Your task to perform on an android device: open app "Messages" Image 0: 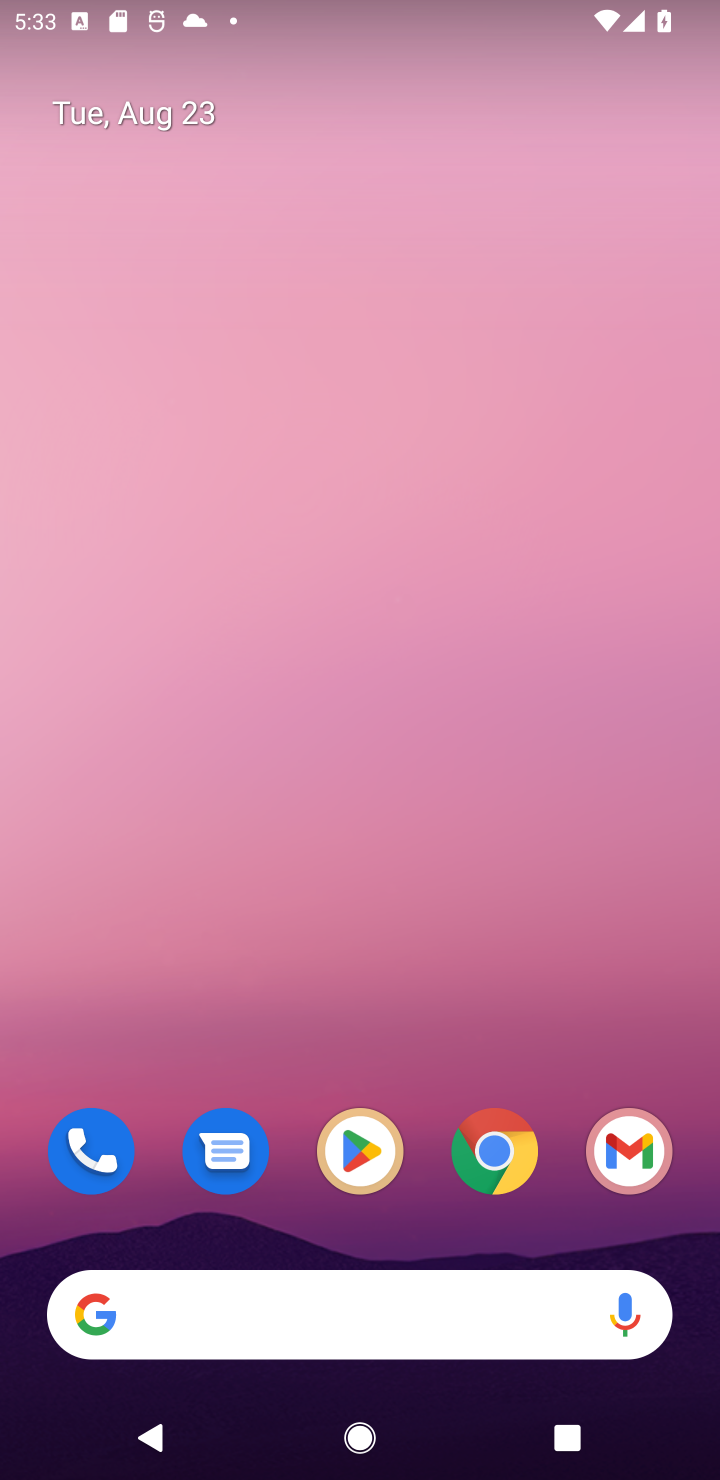
Step 0: click (359, 1163)
Your task to perform on an android device: open app "Messages" Image 1: 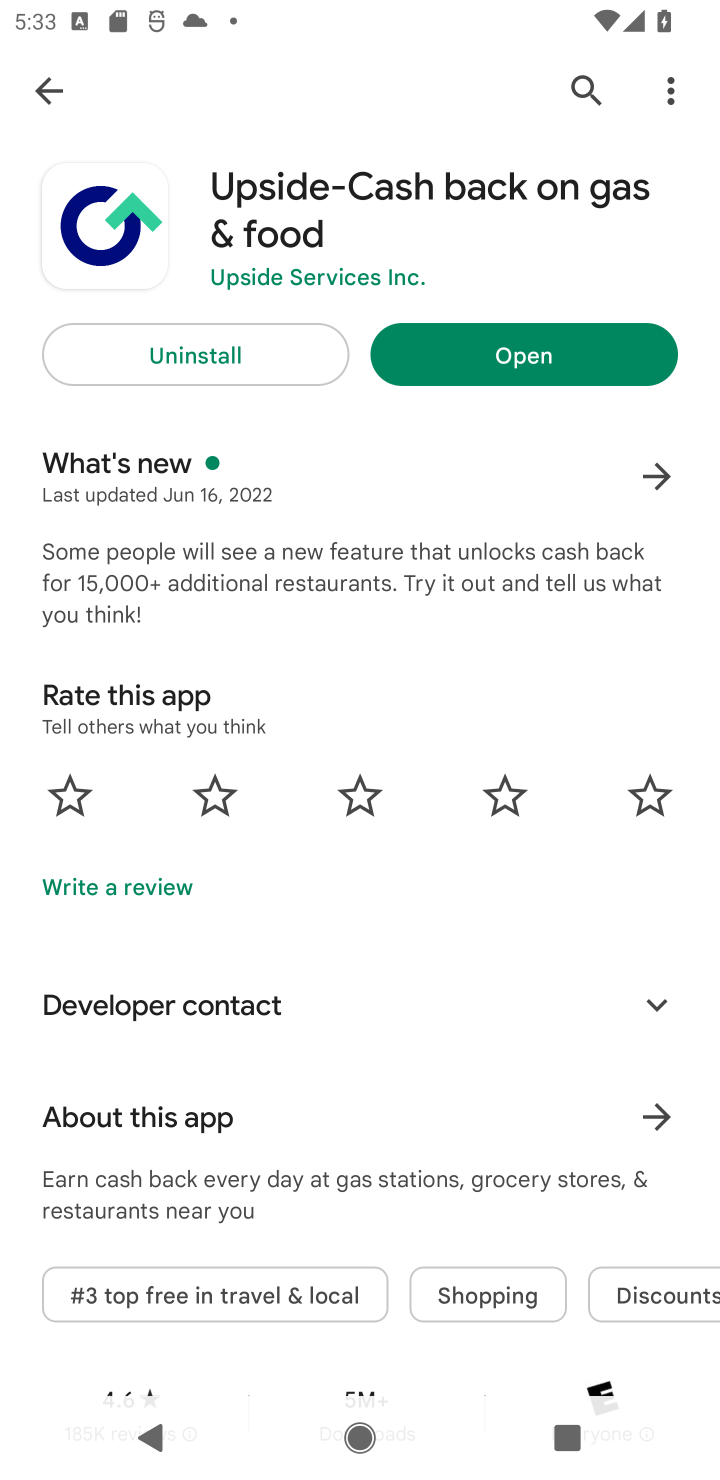
Step 1: click (578, 70)
Your task to perform on an android device: open app "Messages" Image 2: 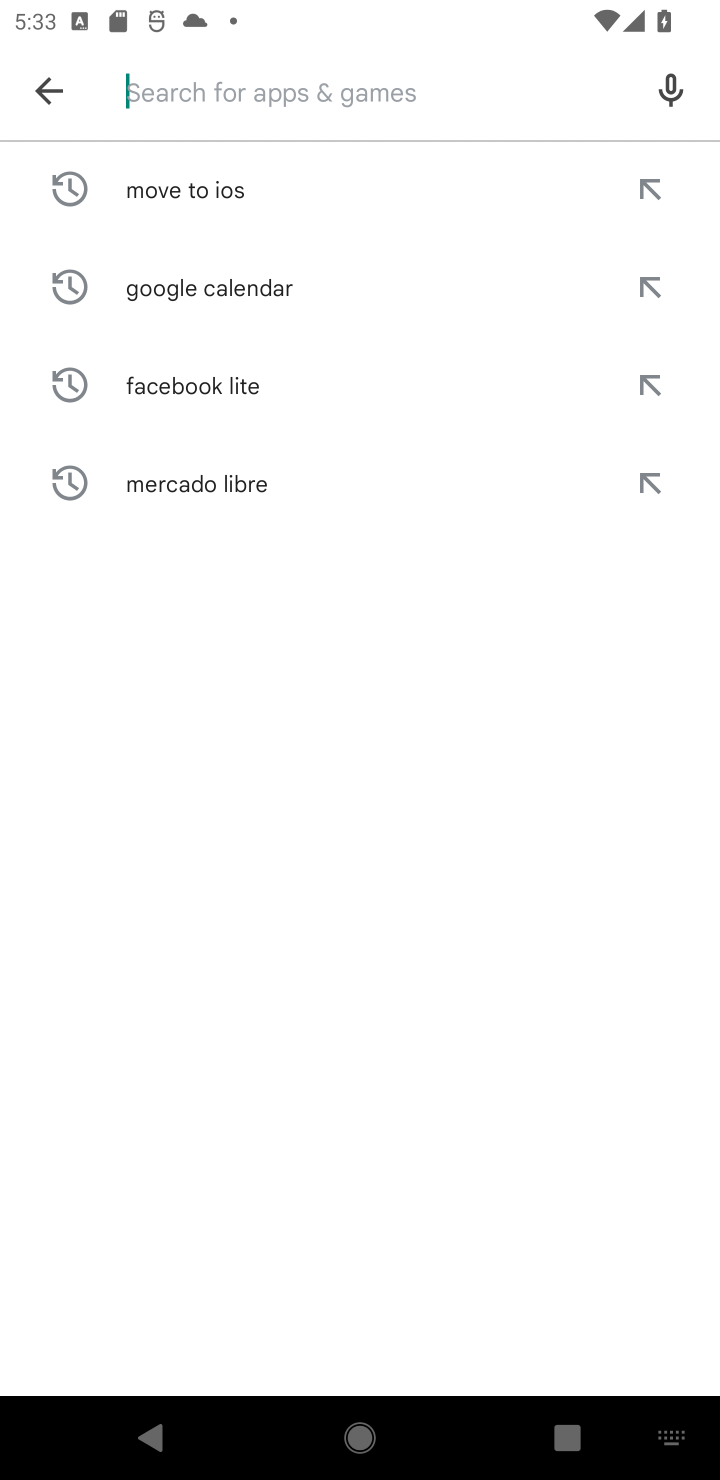
Step 2: type "Messages"
Your task to perform on an android device: open app "Messages" Image 3: 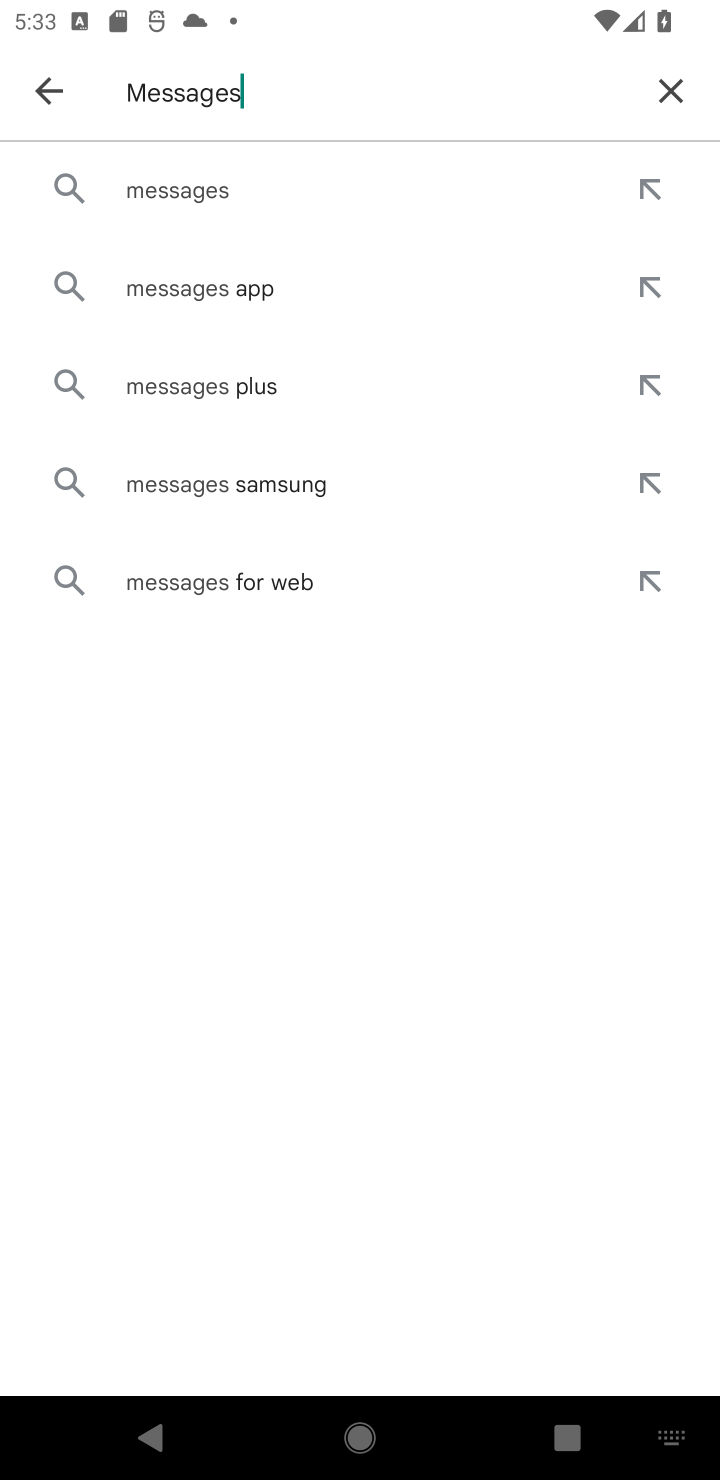
Step 3: click (155, 188)
Your task to perform on an android device: open app "Messages" Image 4: 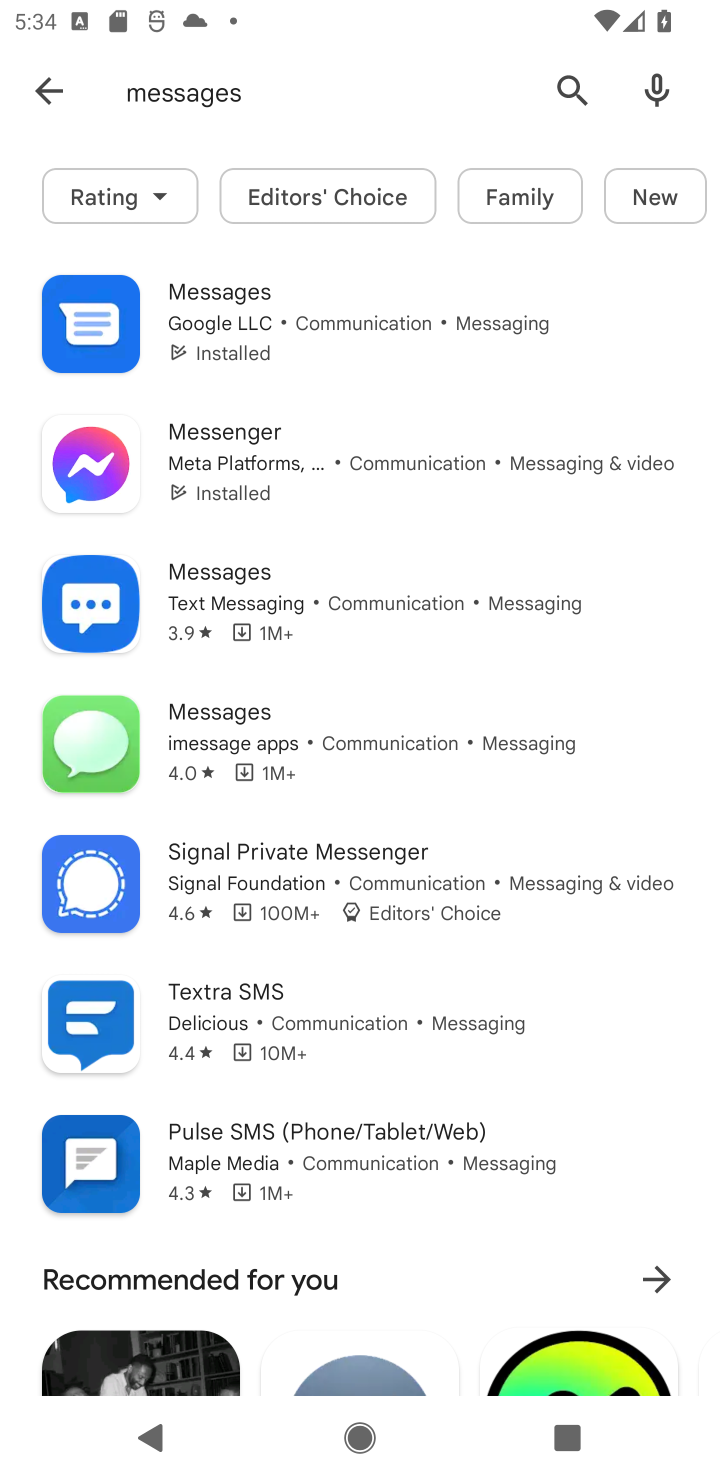
Step 4: click (218, 320)
Your task to perform on an android device: open app "Messages" Image 5: 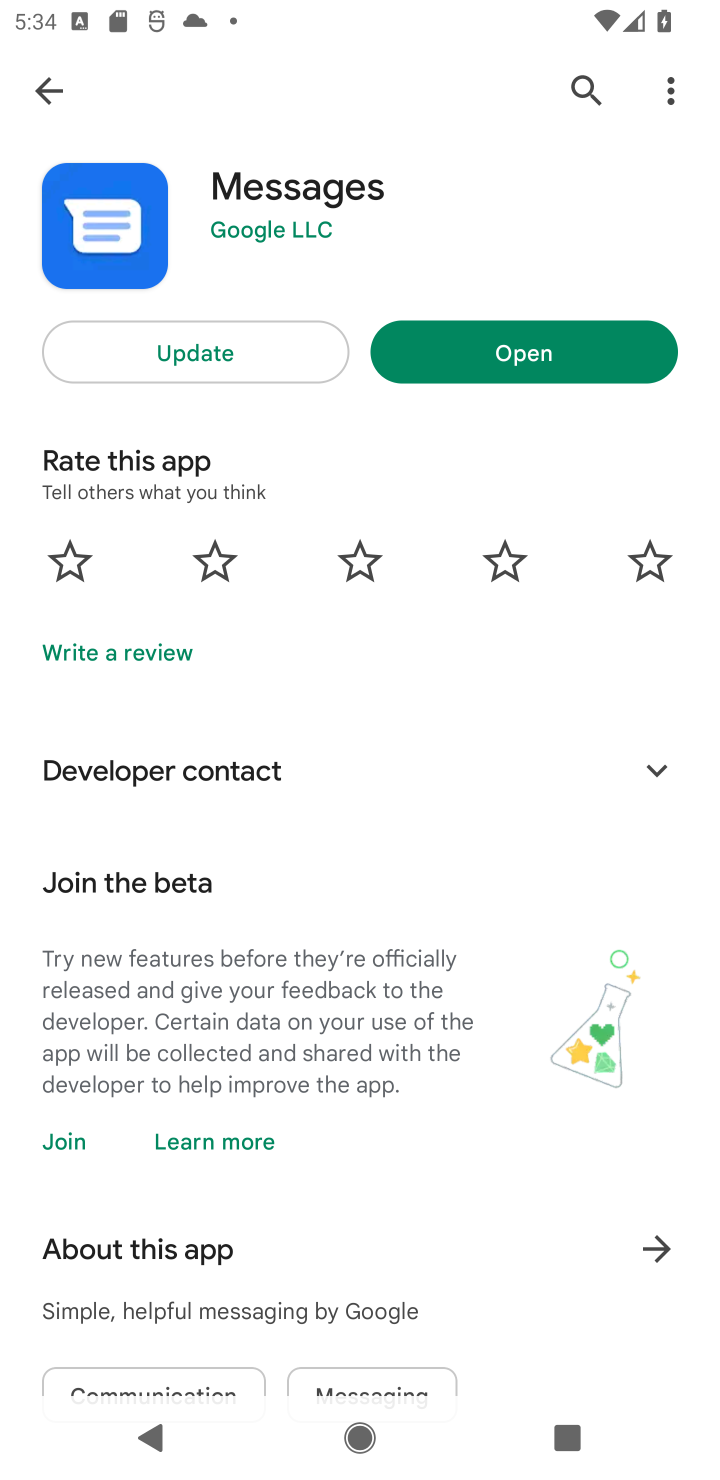
Step 5: click (528, 355)
Your task to perform on an android device: open app "Messages" Image 6: 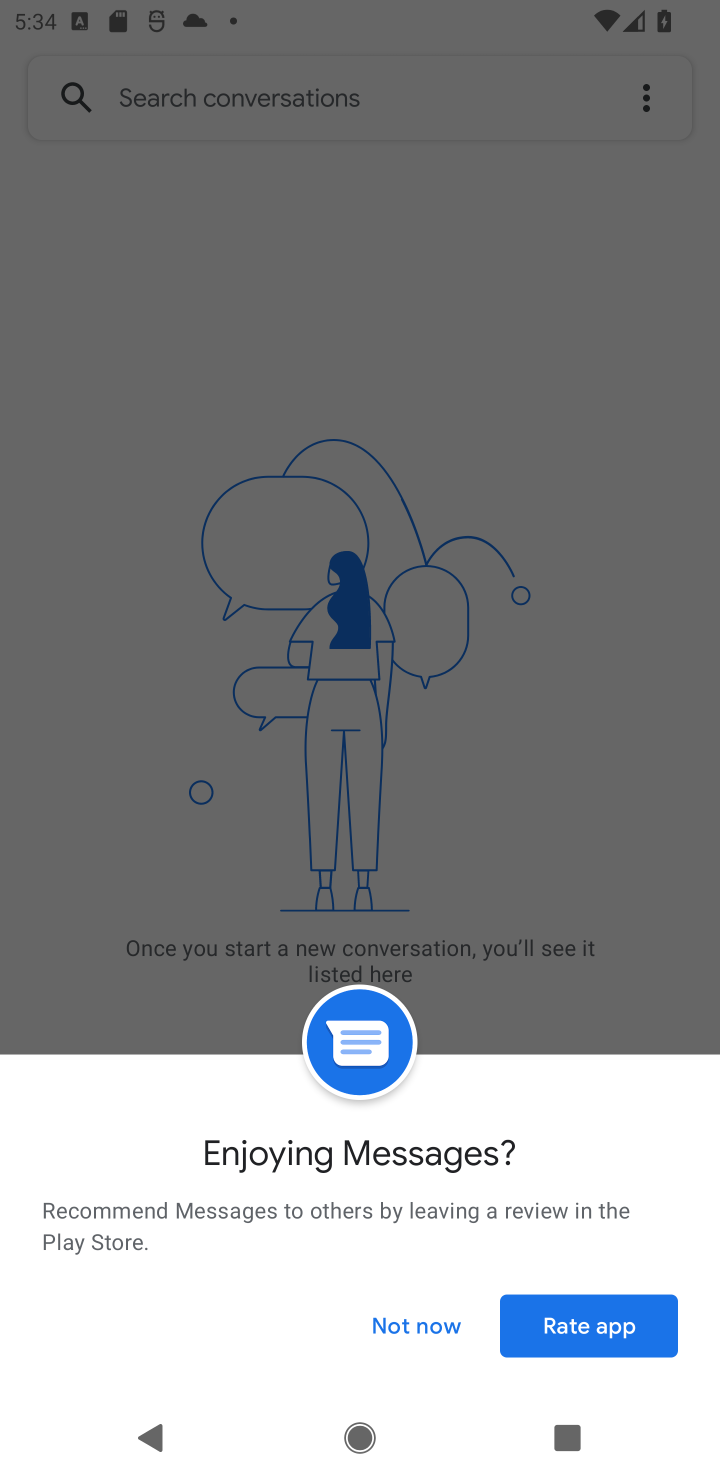
Step 6: task complete